Your task to perform on an android device: Go to CNN.com Image 0: 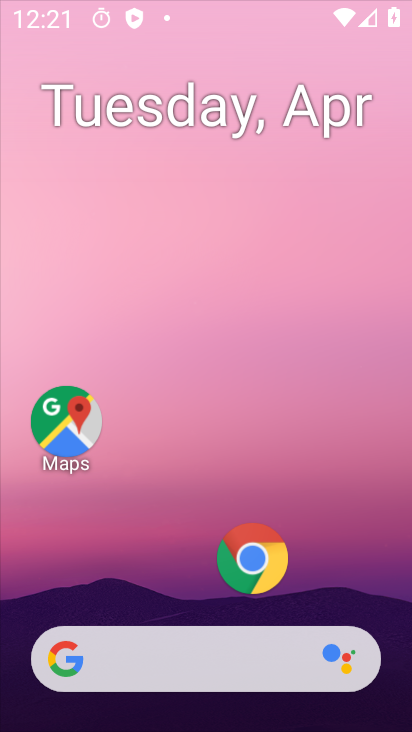
Step 0: drag from (179, 597) to (208, 129)
Your task to perform on an android device: Go to CNN.com Image 1: 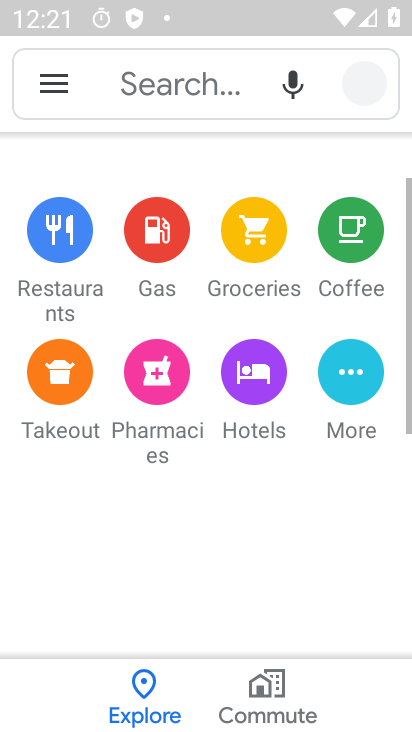
Step 1: press home button
Your task to perform on an android device: Go to CNN.com Image 2: 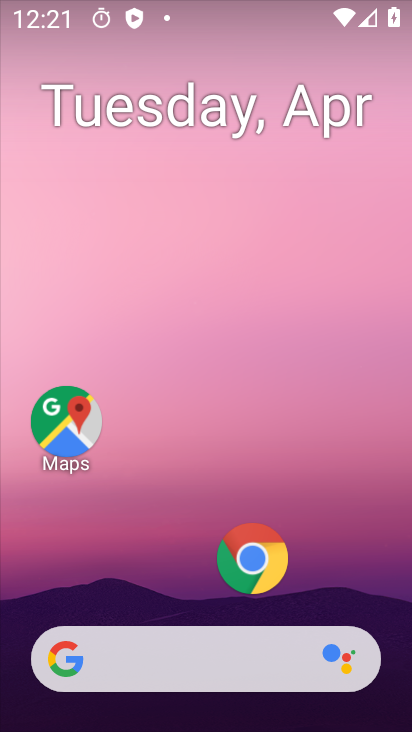
Step 2: click (262, 557)
Your task to perform on an android device: Go to CNN.com Image 3: 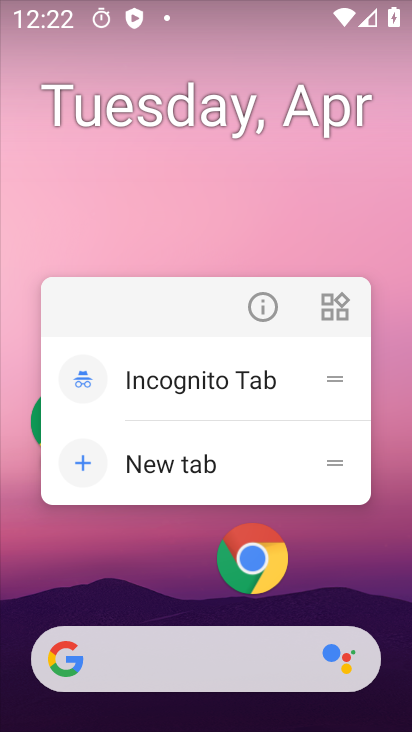
Step 3: click (262, 309)
Your task to perform on an android device: Go to CNN.com Image 4: 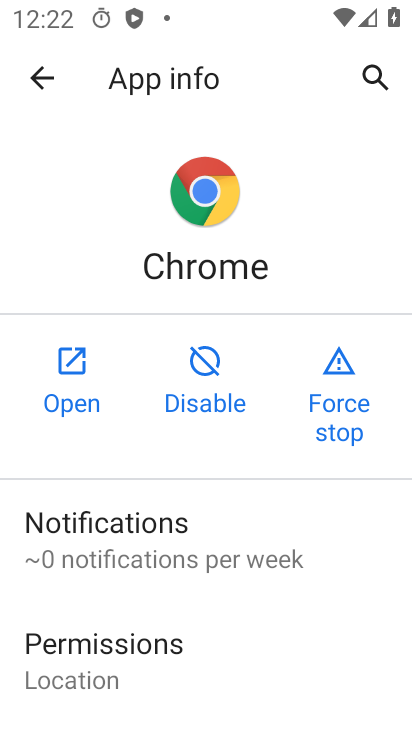
Step 4: click (76, 367)
Your task to perform on an android device: Go to CNN.com Image 5: 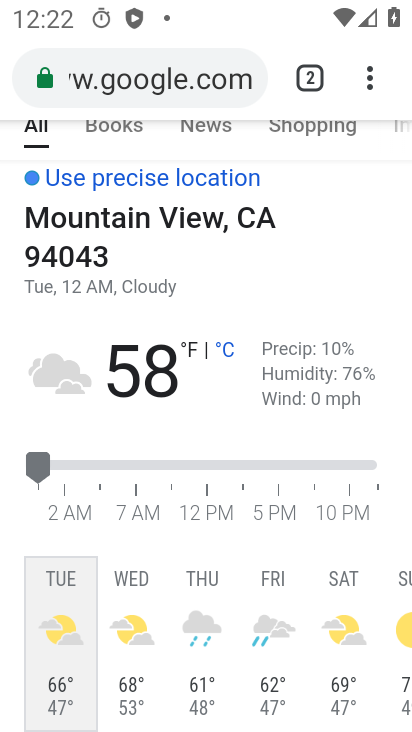
Step 5: click (252, 83)
Your task to perform on an android device: Go to CNN.com Image 6: 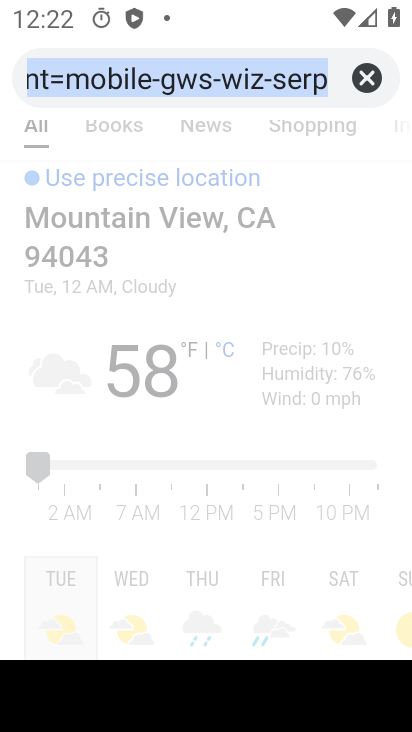
Step 6: click (355, 76)
Your task to perform on an android device: Go to CNN.com Image 7: 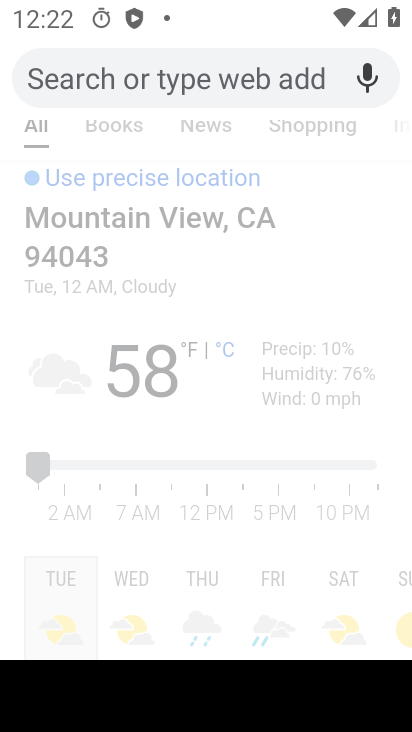
Step 7: type "CNN.com"
Your task to perform on an android device: Go to CNN.com Image 8: 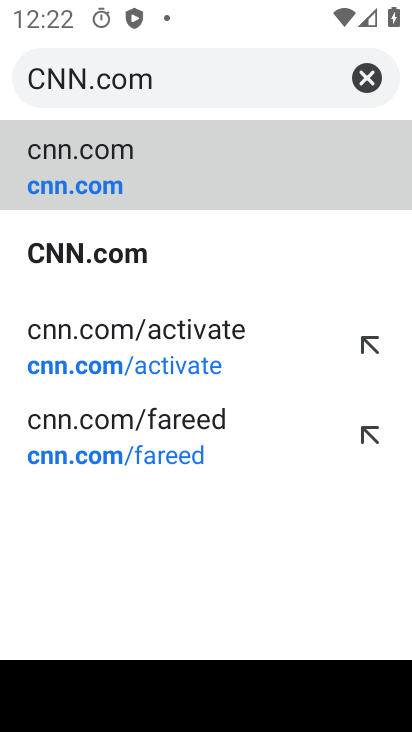
Step 8: click (148, 167)
Your task to perform on an android device: Go to CNN.com Image 9: 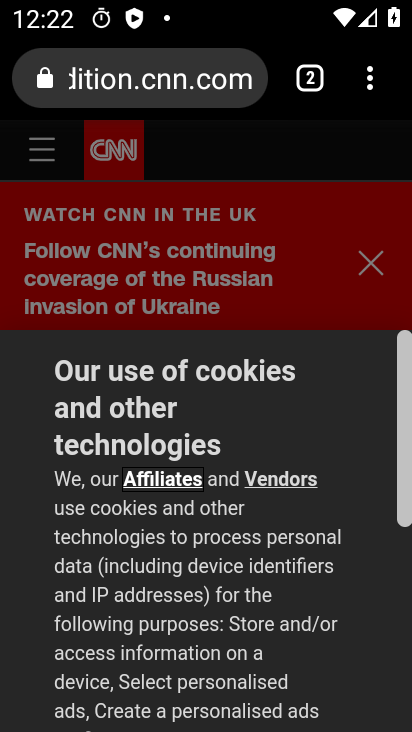
Step 9: task complete